Your task to perform on an android device: Open my contact list Image 0: 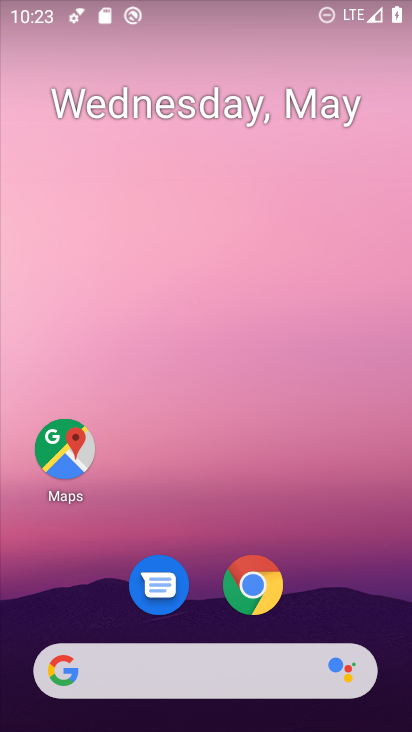
Step 0: drag from (197, 488) to (214, 54)
Your task to perform on an android device: Open my contact list Image 1: 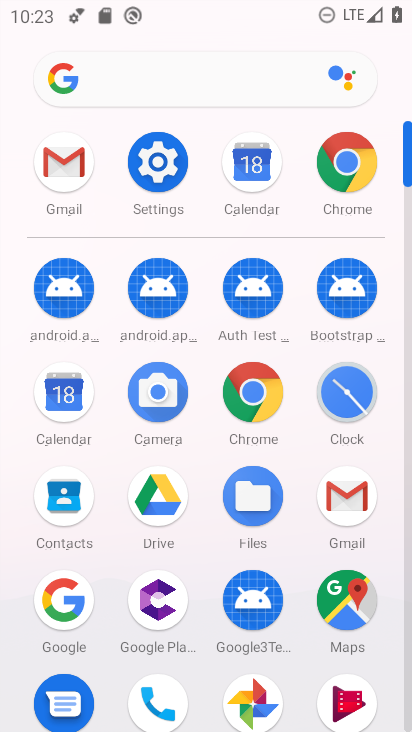
Step 1: click (71, 496)
Your task to perform on an android device: Open my contact list Image 2: 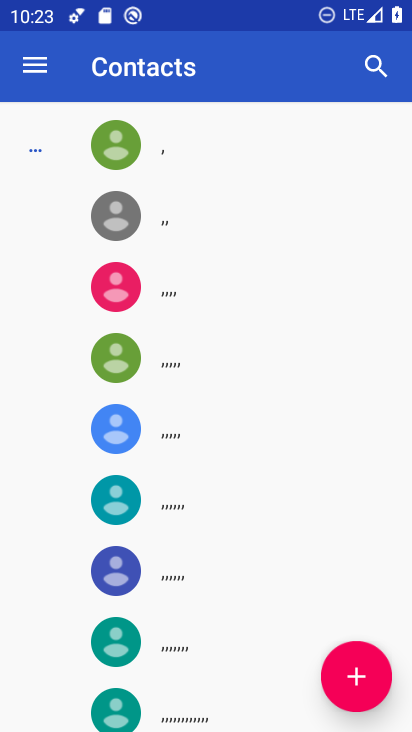
Step 2: task complete